Your task to perform on an android device: turn off airplane mode Image 0: 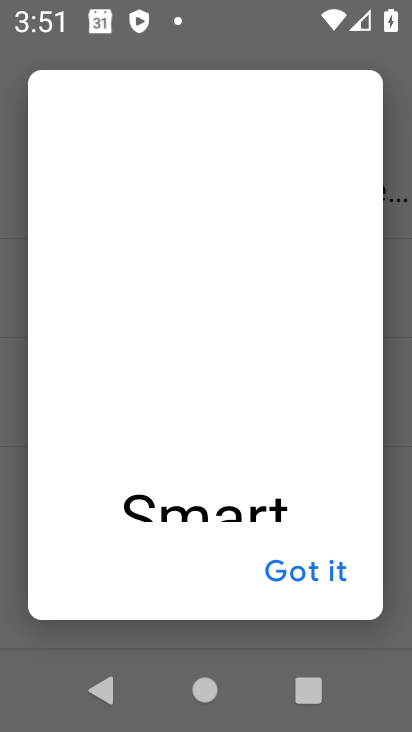
Step 0: press home button
Your task to perform on an android device: turn off airplane mode Image 1: 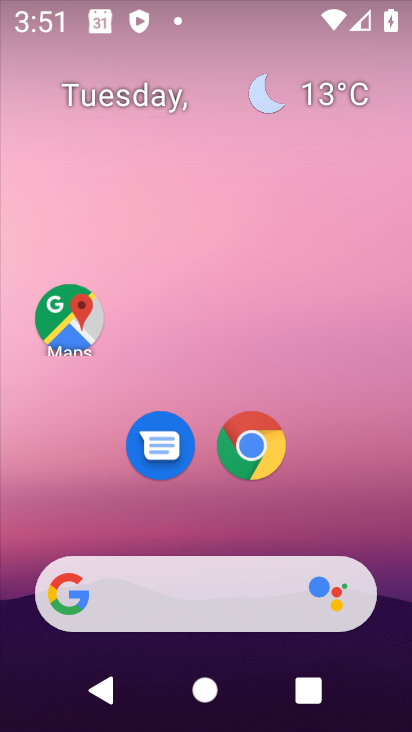
Step 1: drag from (279, 9) to (214, 715)
Your task to perform on an android device: turn off airplane mode Image 2: 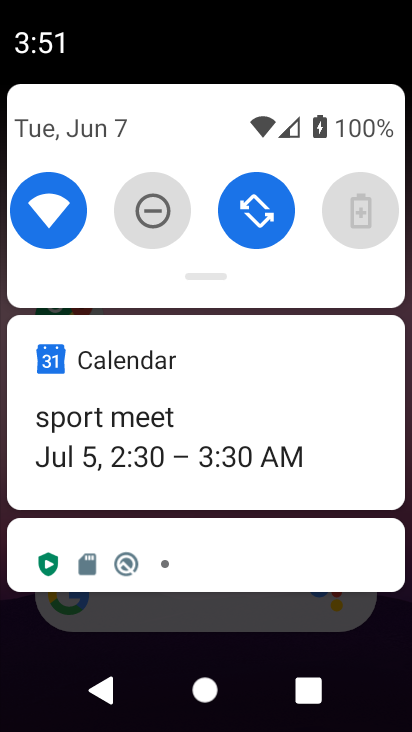
Step 2: drag from (224, 284) to (212, 728)
Your task to perform on an android device: turn off airplane mode Image 3: 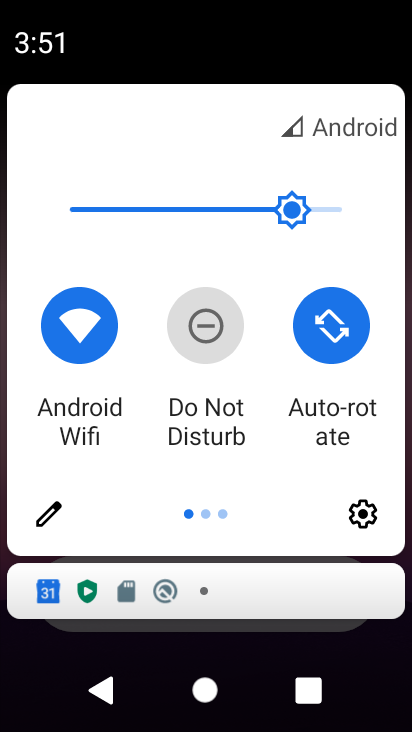
Step 3: click (37, 524)
Your task to perform on an android device: turn off airplane mode Image 4: 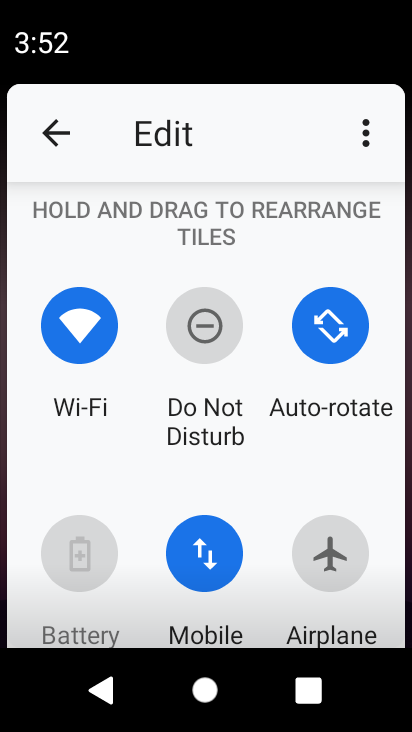
Step 4: task complete